Your task to perform on an android device: change text size in settings app Image 0: 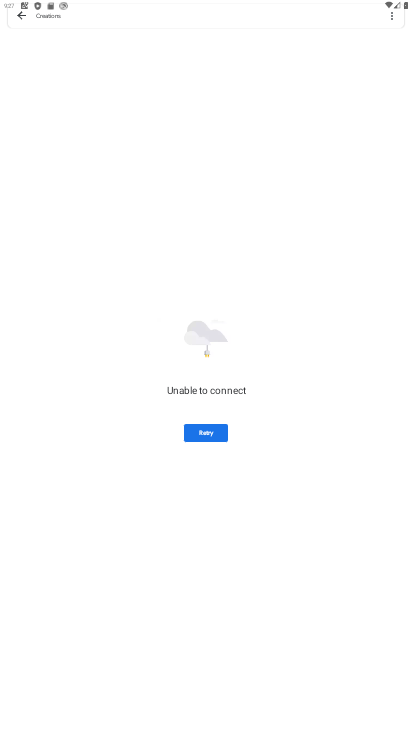
Step 0: press home button
Your task to perform on an android device: change text size in settings app Image 1: 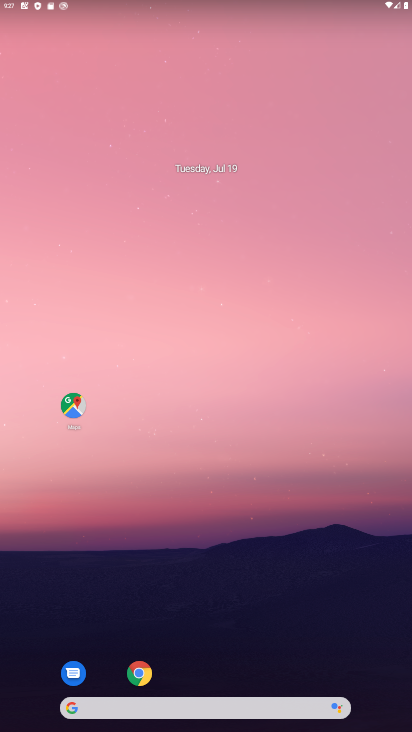
Step 1: drag from (219, 636) to (231, 192)
Your task to perform on an android device: change text size in settings app Image 2: 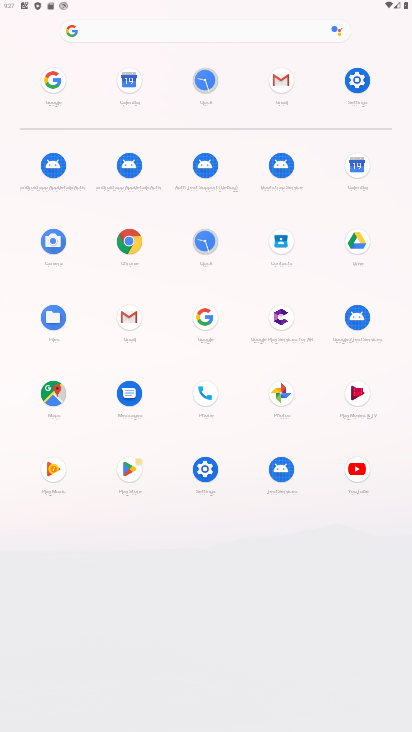
Step 2: click (367, 83)
Your task to perform on an android device: change text size in settings app Image 3: 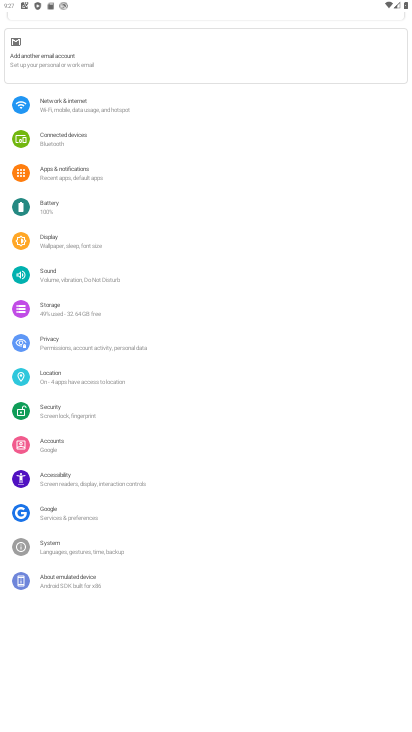
Step 3: click (85, 239)
Your task to perform on an android device: change text size in settings app Image 4: 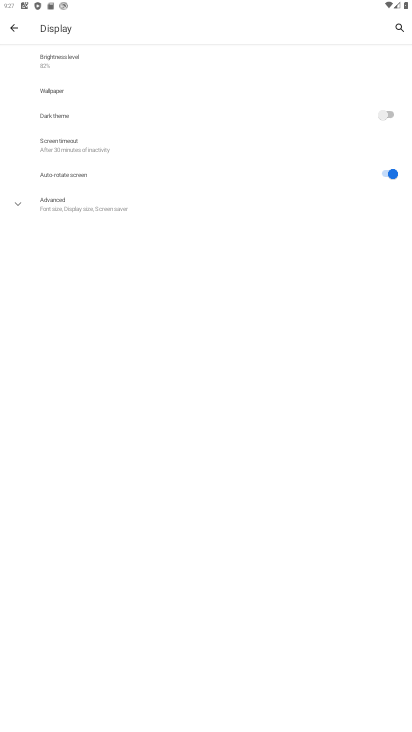
Step 4: click (28, 202)
Your task to perform on an android device: change text size in settings app Image 5: 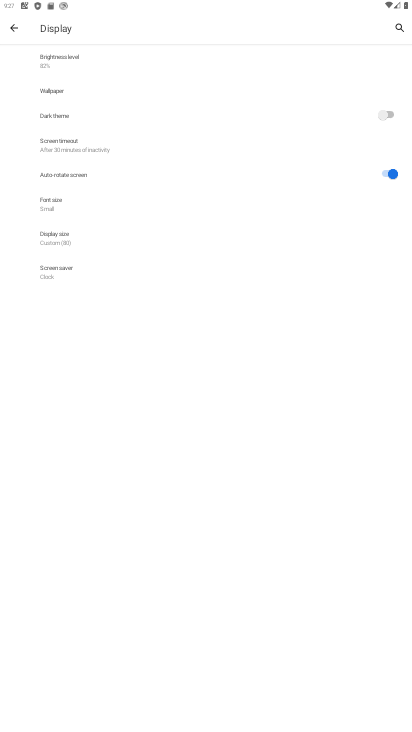
Step 5: click (65, 199)
Your task to perform on an android device: change text size in settings app Image 6: 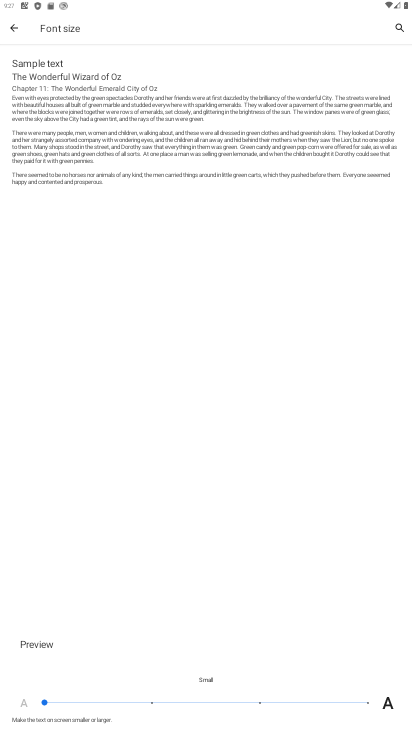
Step 6: click (355, 697)
Your task to perform on an android device: change text size in settings app Image 7: 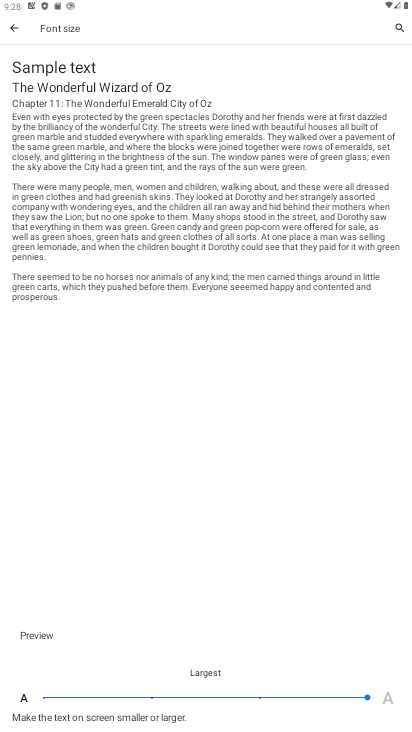
Step 7: task complete